Your task to perform on an android device: Open location settings Image 0: 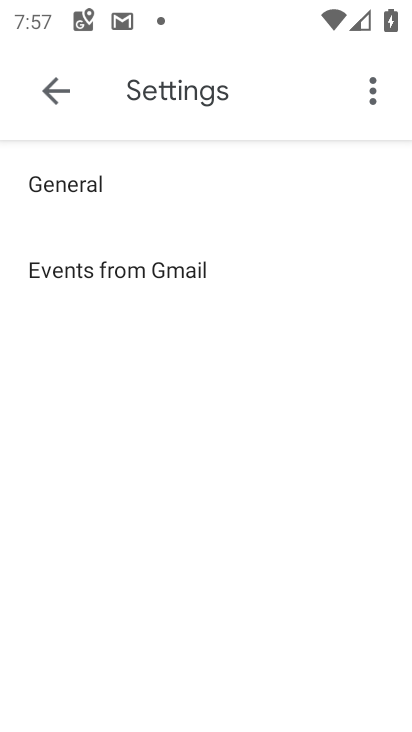
Step 0: press home button
Your task to perform on an android device: Open location settings Image 1: 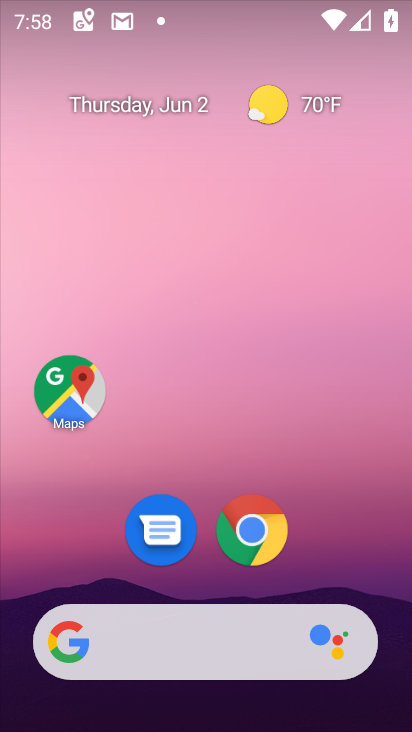
Step 1: drag from (183, 612) to (247, 158)
Your task to perform on an android device: Open location settings Image 2: 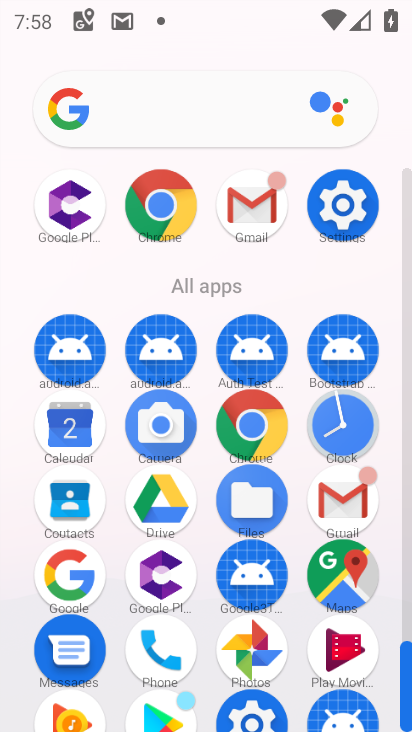
Step 2: click (346, 197)
Your task to perform on an android device: Open location settings Image 3: 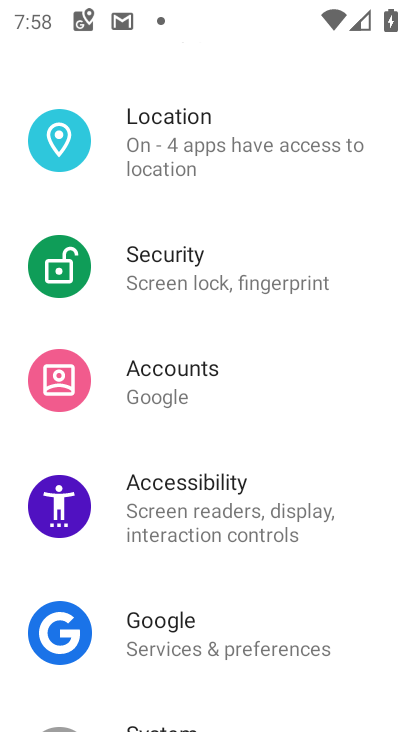
Step 3: click (192, 129)
Your task to perform on an android device: Open location settings Image 4: 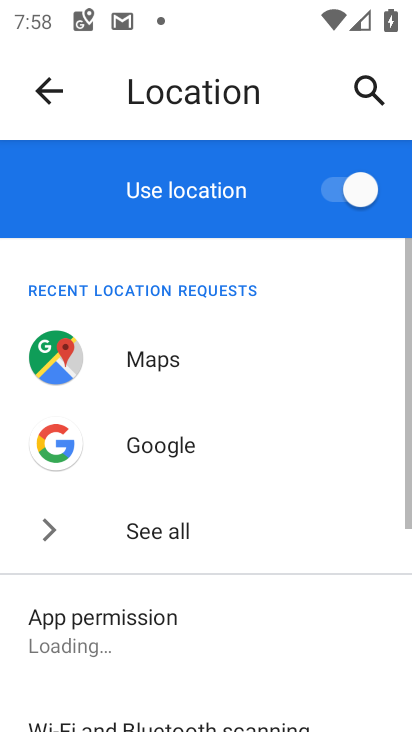
Step 4: drag from (180, 649) to (204, 265)
Your task to perform on an android device: Open location settings Image 5: 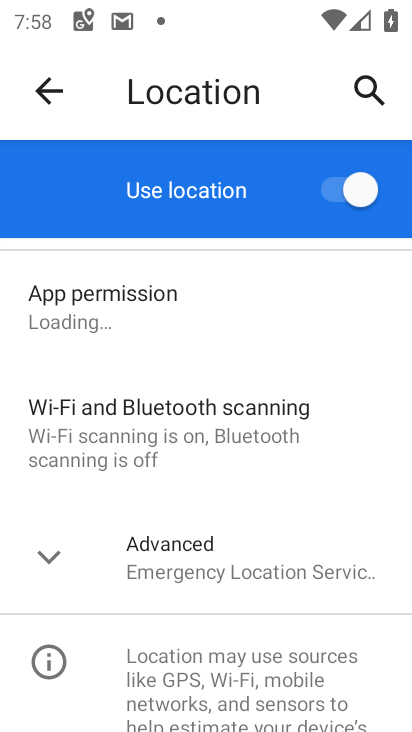
Step 5: click (180, 565)
Your task to perform on an android device: Open location settings Image 6: 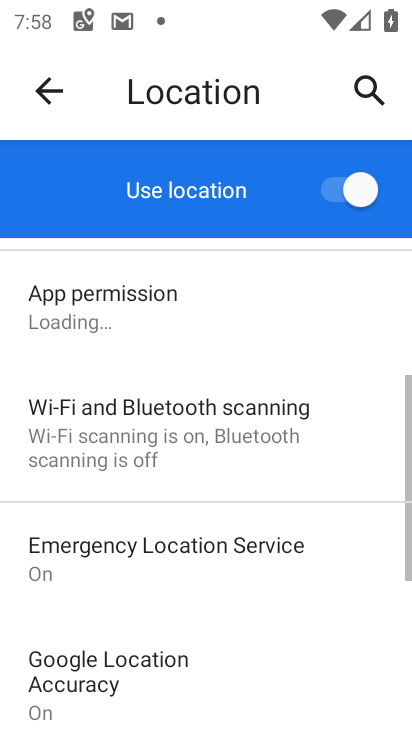
Step 6: task complete